Your task to perform on an android device: Go to Wikipedia Image 0: 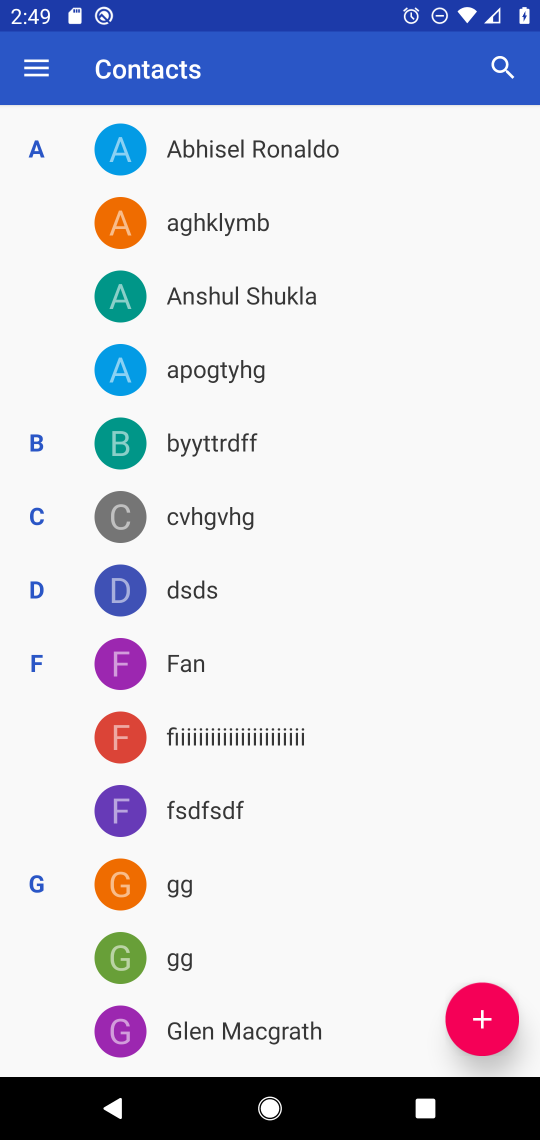
Step 0: press home button
Your task to perform on an android device: Go to Wikipedia Image 1: 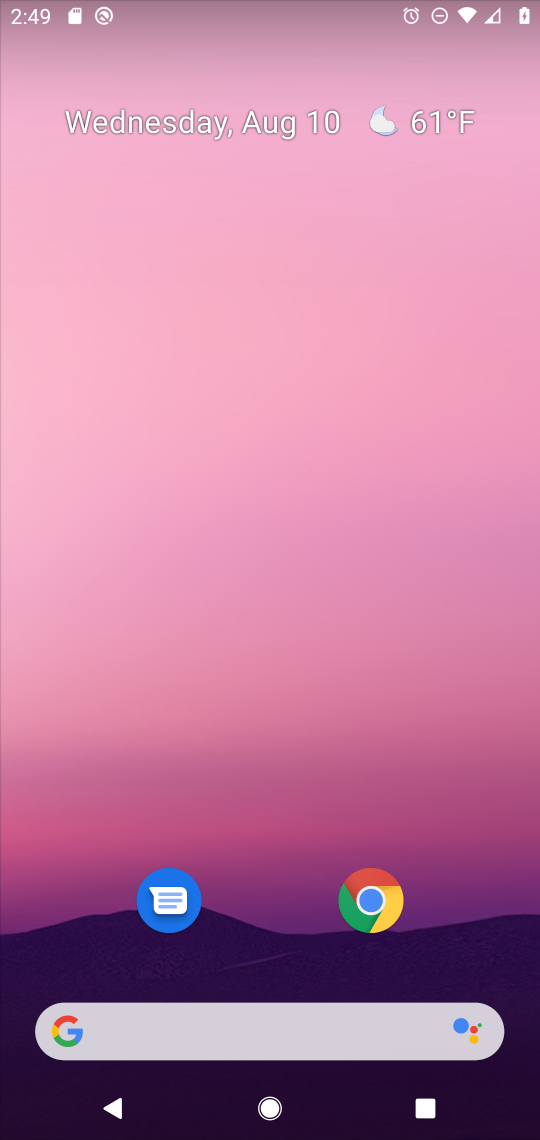
Step 1: click (371, 900)
Your task to perform on an android device: Go to Wikipedia Image 2: 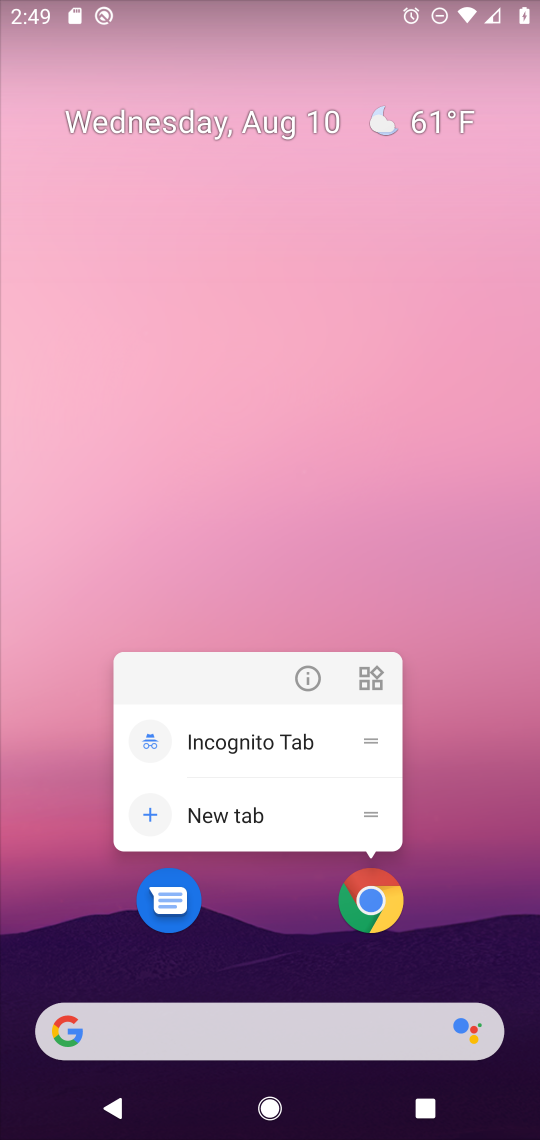
Step 2: click (371, 900)
Your task to perform on an android device: Go to Wikipedia Image 3: 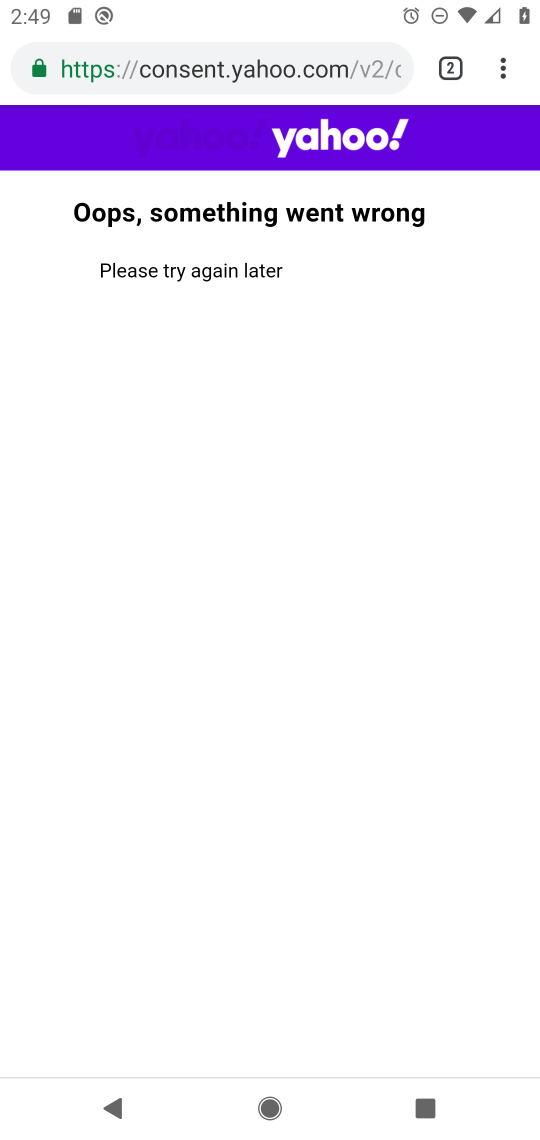
Step 3: click (499, 65)
Your task to perform on an android device: Go to Wikipedia Image 4: 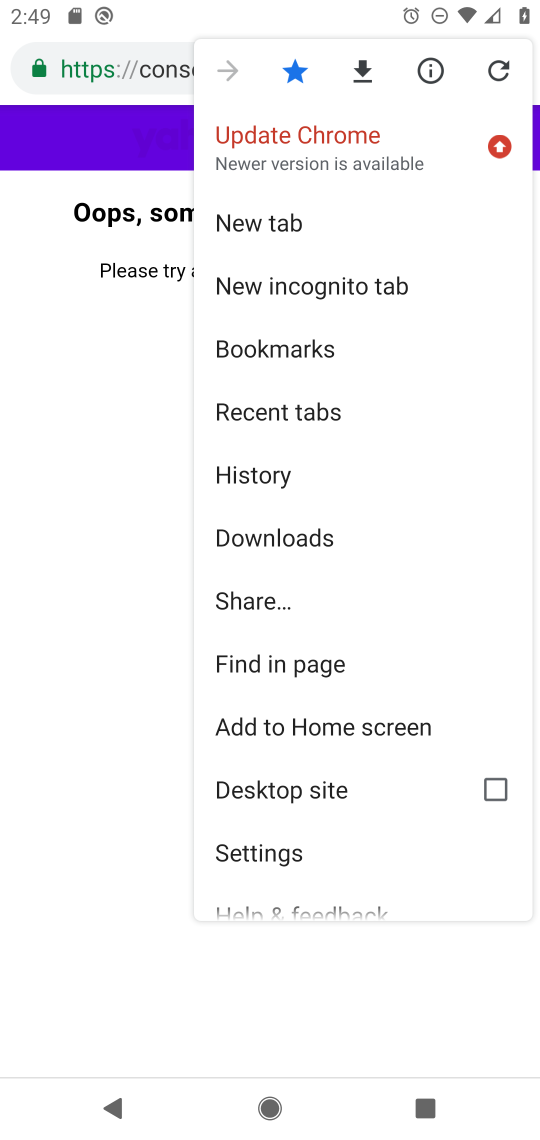
Step 4: click (314, 221)
Your task to perform on an android device: Go to Wikipedia Image 5: 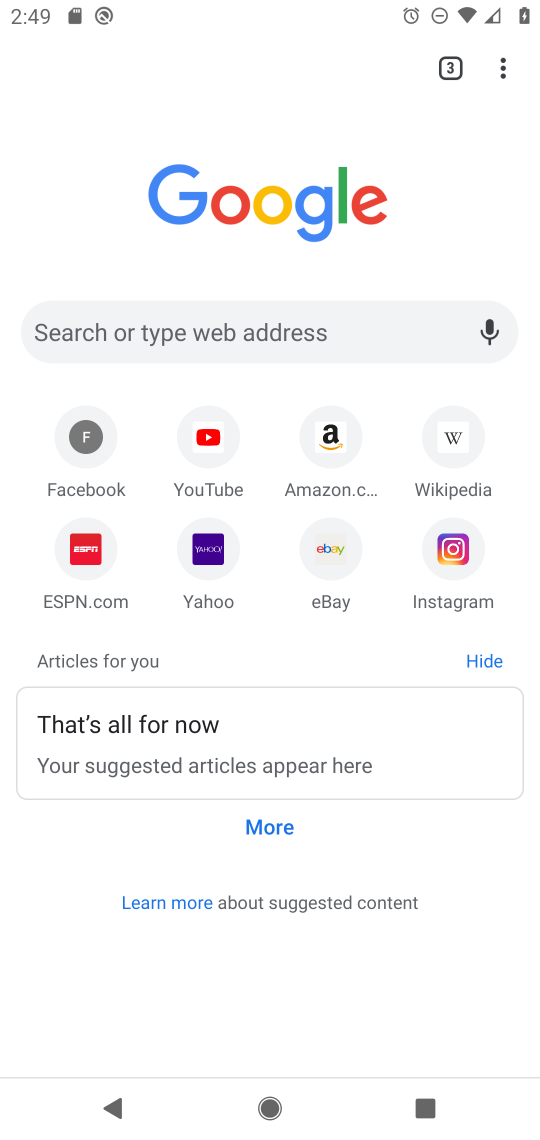
Step 5: click (451, 419)
Your task to perform on an android device: Go to Wikipedia Image 6: 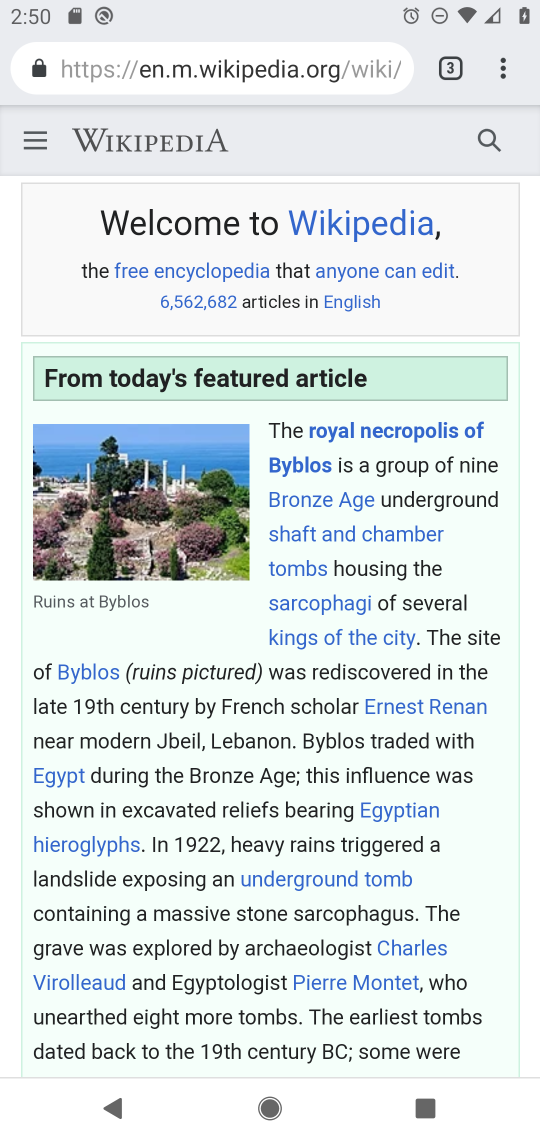
Step 6: task complete